Your task to perform on an android device: turn smart compose on in the gmail app Image 0: 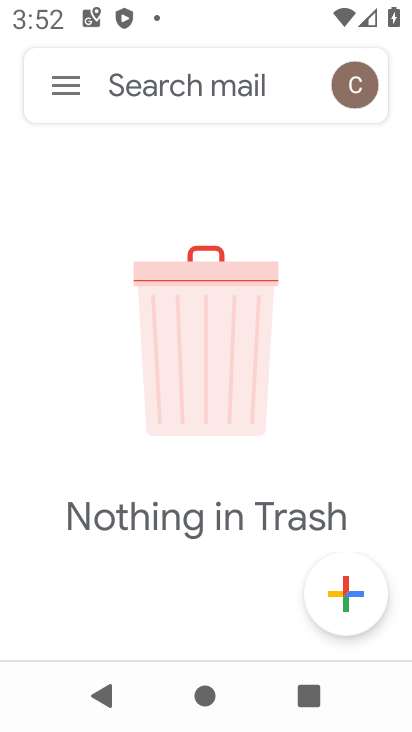
Step 0: click (71, 65)
Your task to perform on an android device: turn smart compose on in the gmail app Image 1: 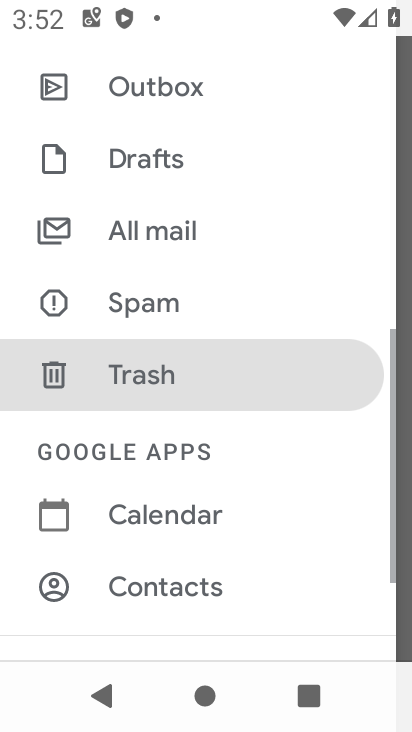
Step 1: drag from (182, 563) to (276, 15)
Your task to perform on an android device: turn smart compose on in the gmail app Image 2: 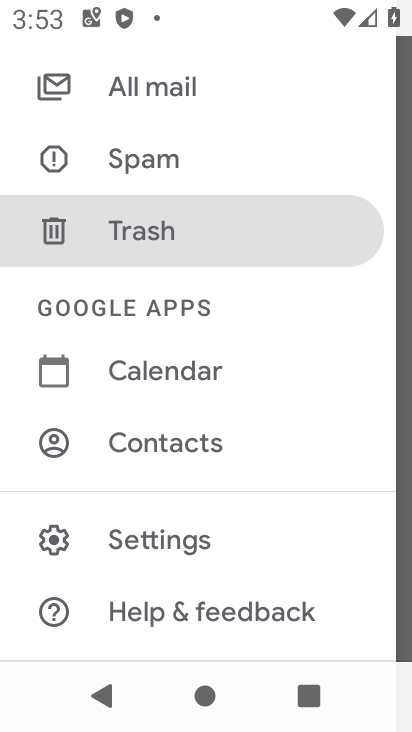
Step 2: click (146, 533)
Your task to perform on an android device: turn smart compose on in the gmail app Image 3: 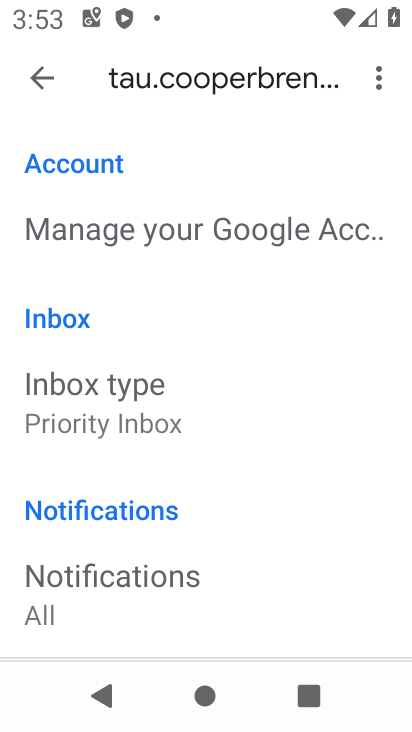
Step 3: task complete